Your task to perform on an android device: Go to ESPN.com Image 0: 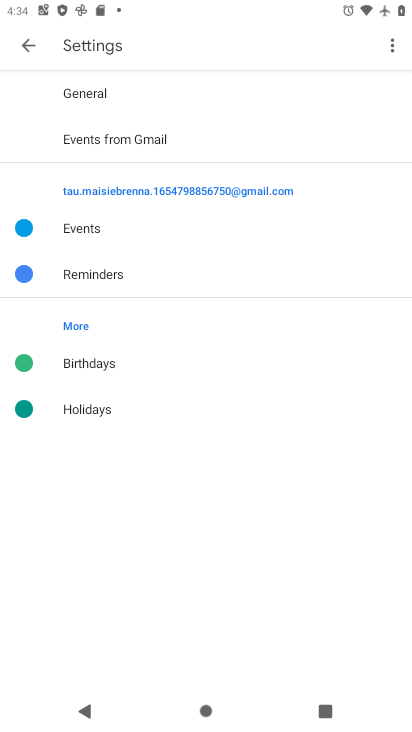
Step 0: press home button
Your task to perform on an android device: Go to ESPN.com Image 1: 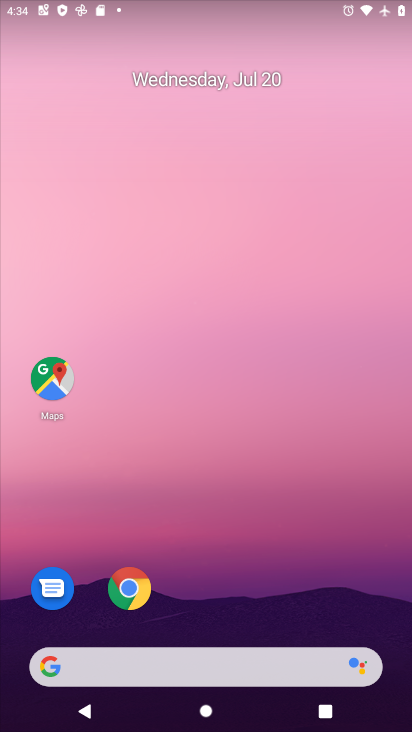
Step 1: drag from (272, 177) to (282, 90)
Your task to perform on an android device: Go to ESPN.com Image 2: 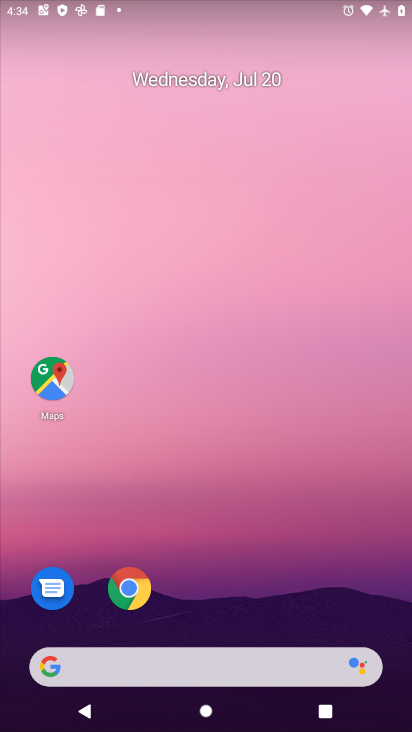
Step 2: drag from (257, 567) to (309, 53)
Your task to perform on an android device: Go to ESPN.com Image 3: 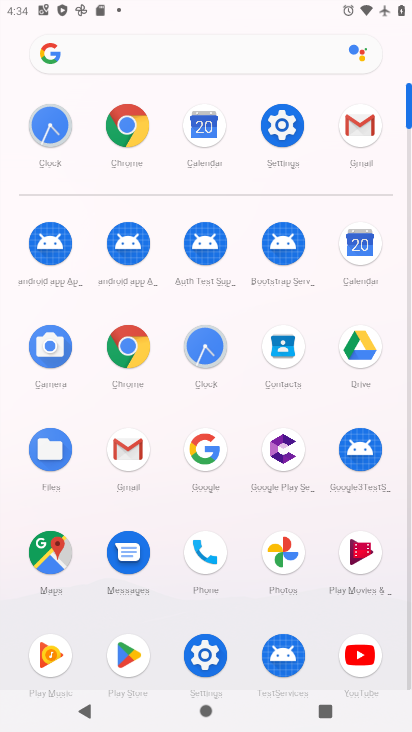
Step 3: click (127, 125)
Your task to perform on an android device: Go to ESPN.com Image 4: 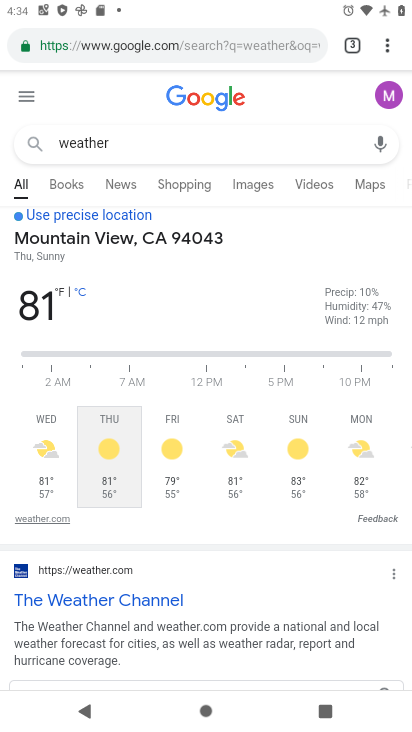
Step 4: click (241, 48)
Your task to perform on an android device: Go to ESPN.com Image 5: 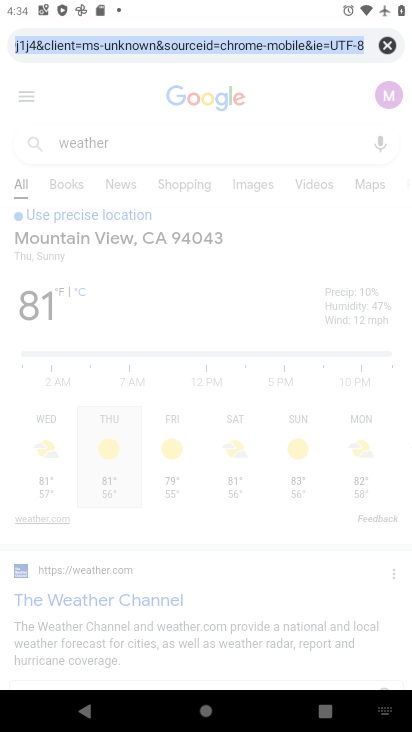
Step 5: type "espn.com"
Your task to perform on an android device: Go to ESPN.com Image 6: 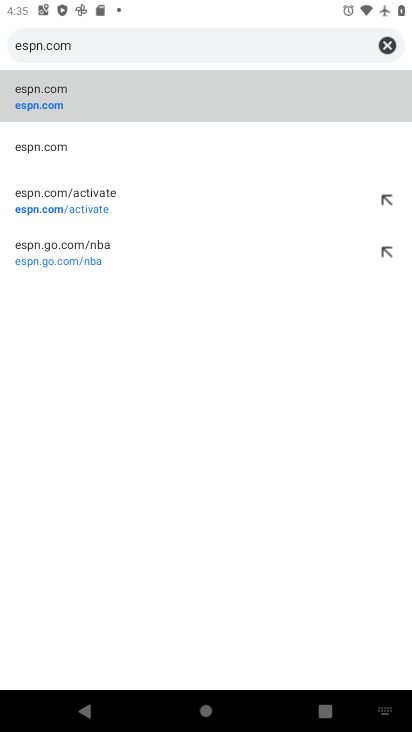
Step 6: click (51, 108)
Your task to perform on an android device: Go to ESPN.com Image 7: 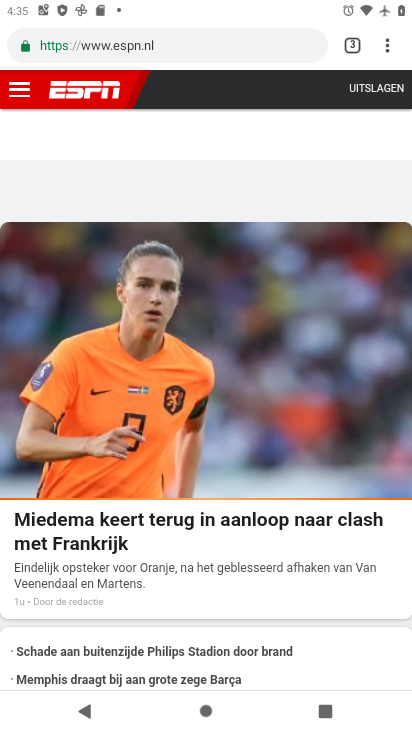
Step 7: task complete